Your task to perform on an android device: turn off sleep mode Image 0: 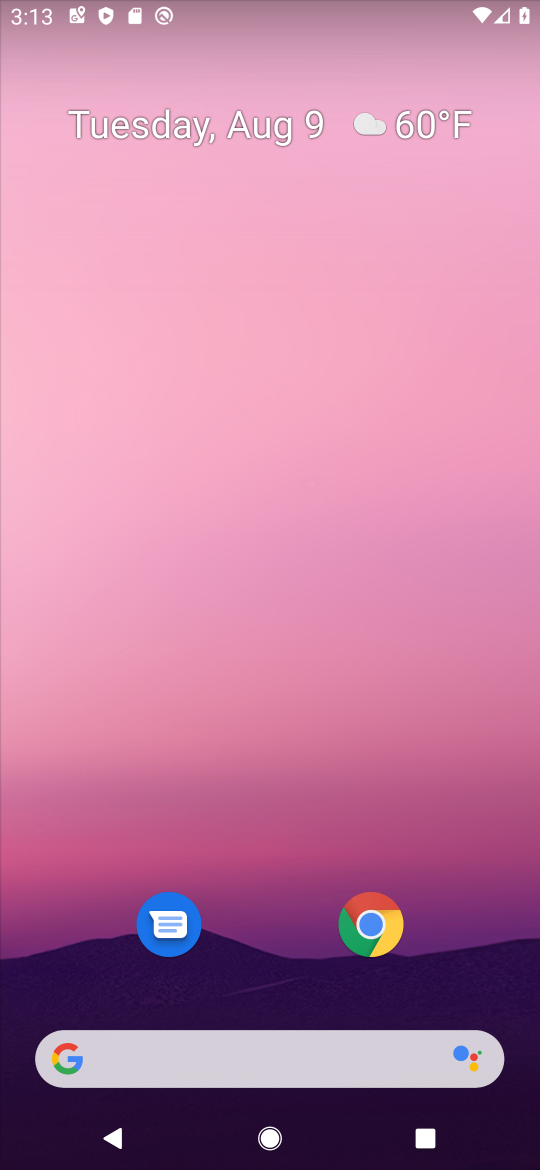
Step 0: drag from (294, 915) to (412, 0)
Your task to perform on an android device: turn off sleep mode Image 1: 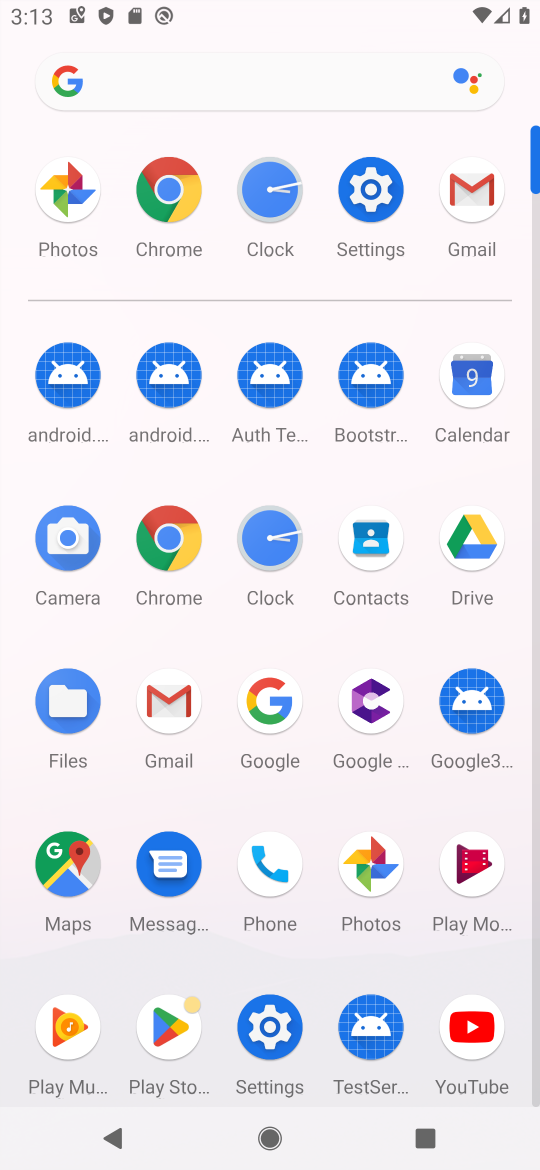
Step 1: click (381, 184)
Your task to perform on an android device: turn off sleep mode Image 2: 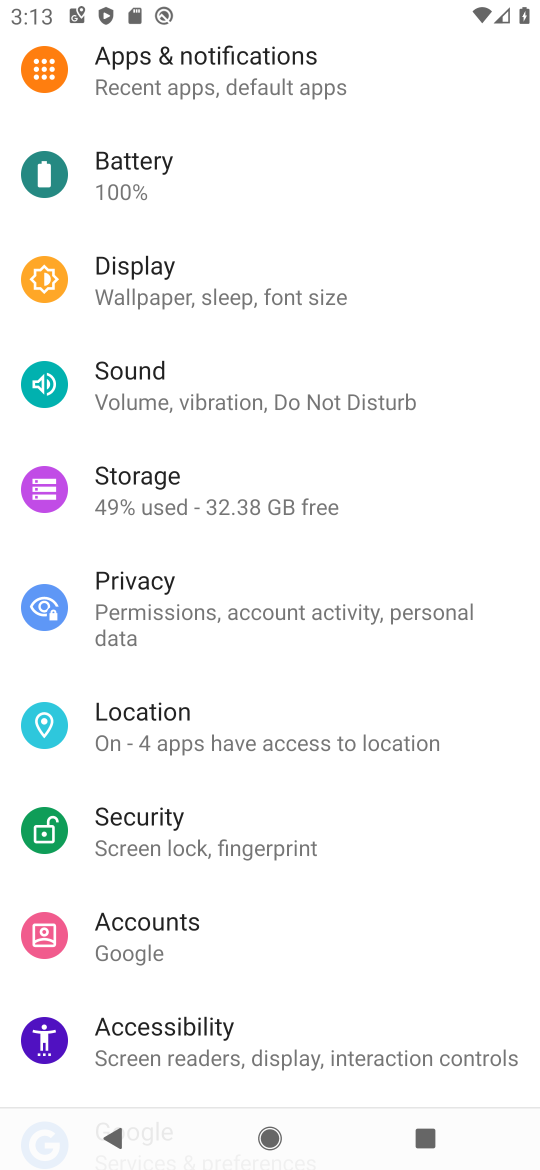
Step 2: click (303, 277)
Your task to perform on an android device: turn off sleep mode Image 3: 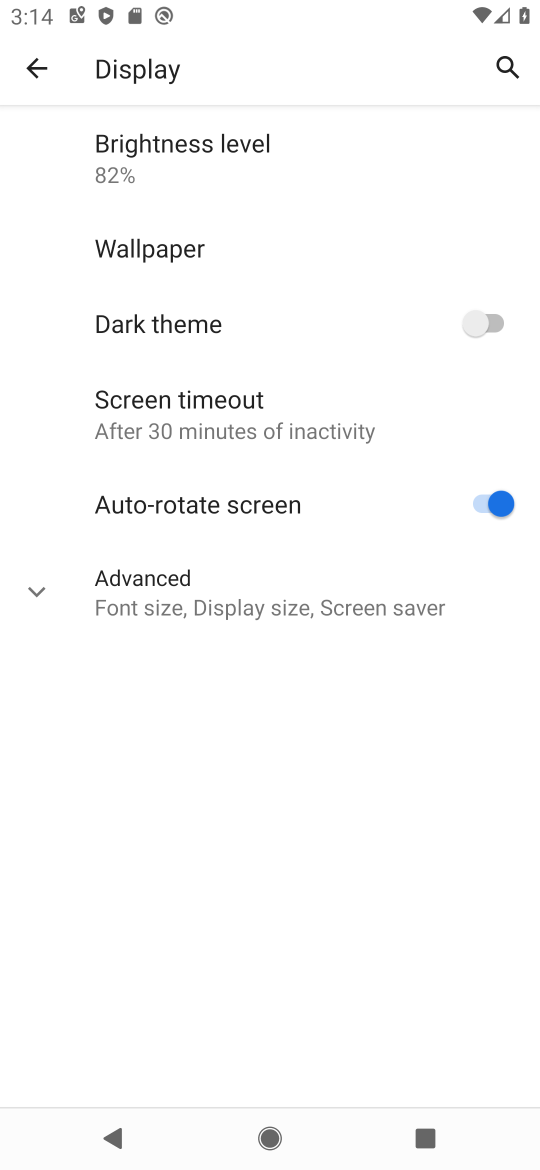
Step 3: click (34, 584)
Your task to perform on an android device: turn off sleep mode Image 4: 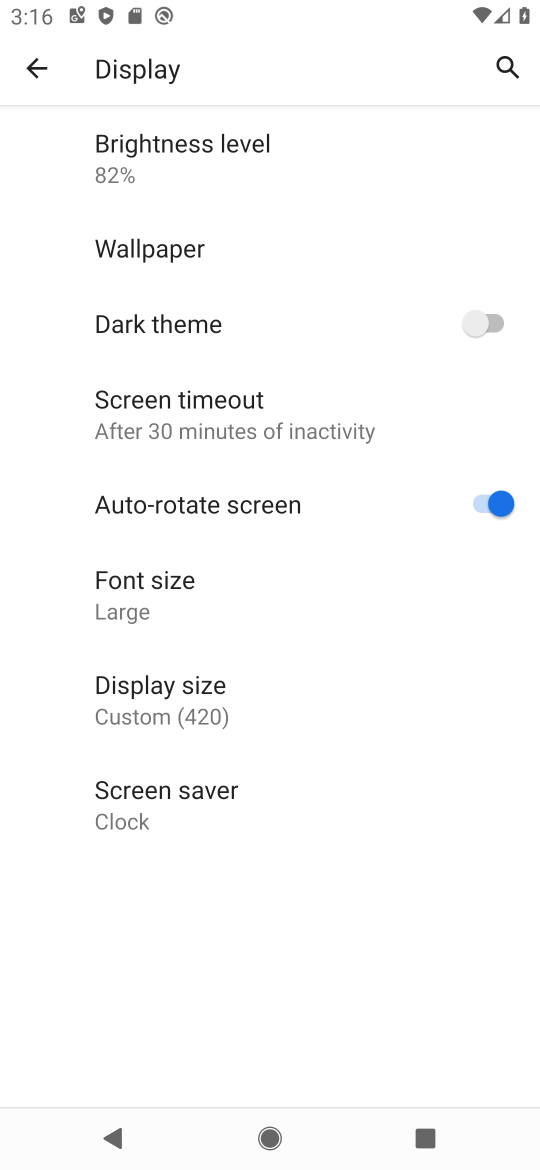
Step 4: task complete